Your task to perform on an android device: change notification settings in the gmail app Image 0: 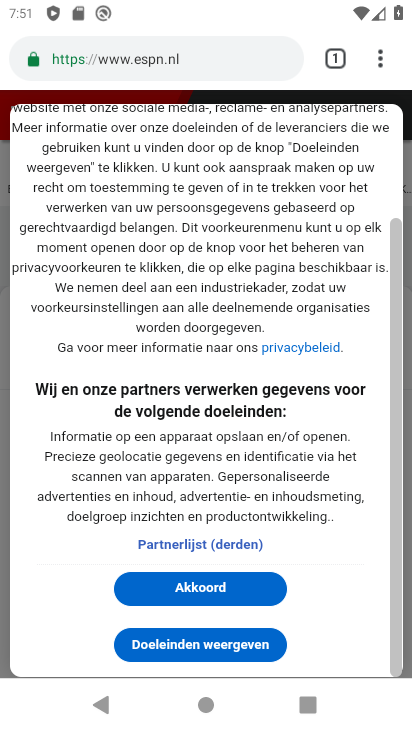
Step 0: click (49, 339)
Your task to perform on an android device: change notification settings in the gmail app Image 1: 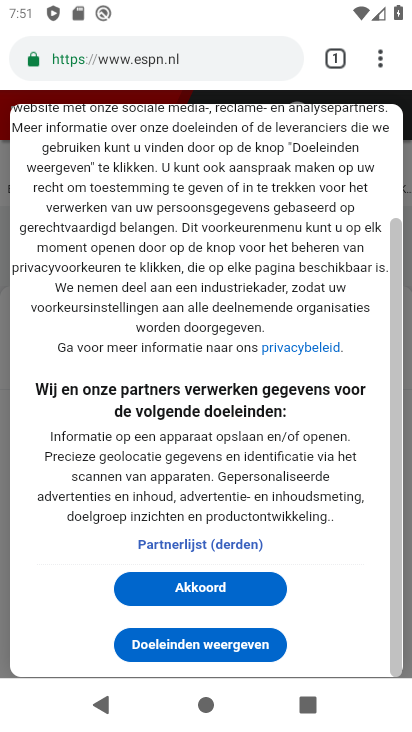
Step 1: press home button
Your task to perform on an android device: change notification settings in the gmail app Image 2: 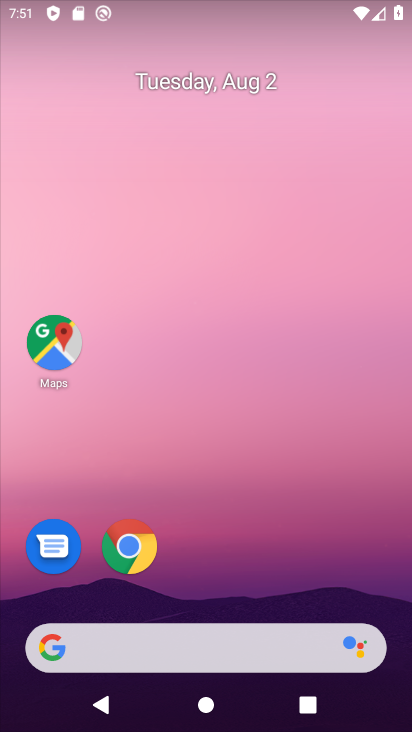
Step 2: drag from (212, 591) to (220, 80)
Your task to perform on an android device: change notification settings in the gmail app Image 3: 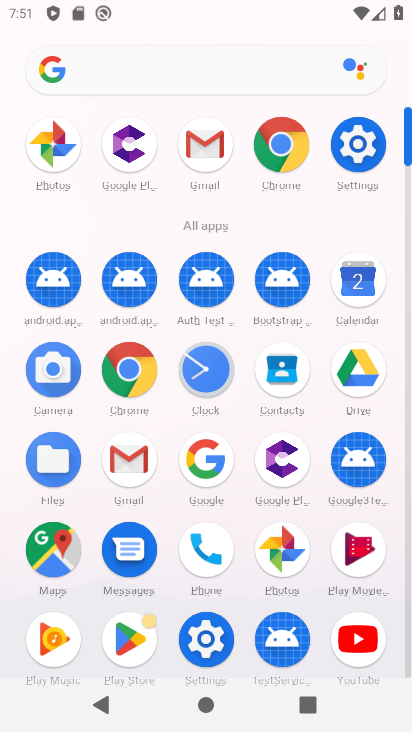
Step 3: click (131, 461)
Your task to perform on an android device: change notification settings in the gmail app Image 4: 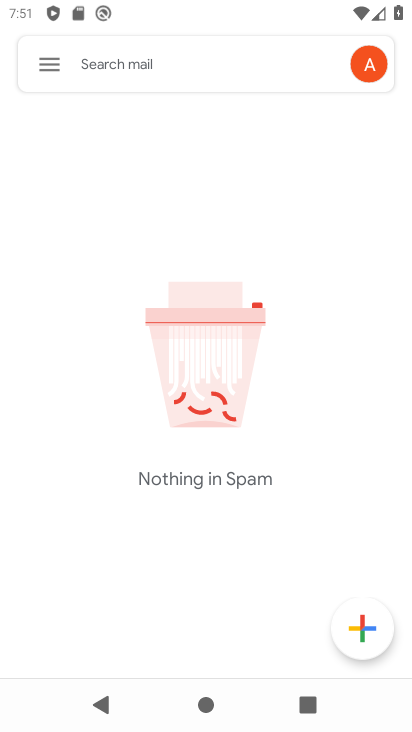
Step 4: click (48, 62)
Your task to perform on an android device: change notification settings in the gmail app Image 5: 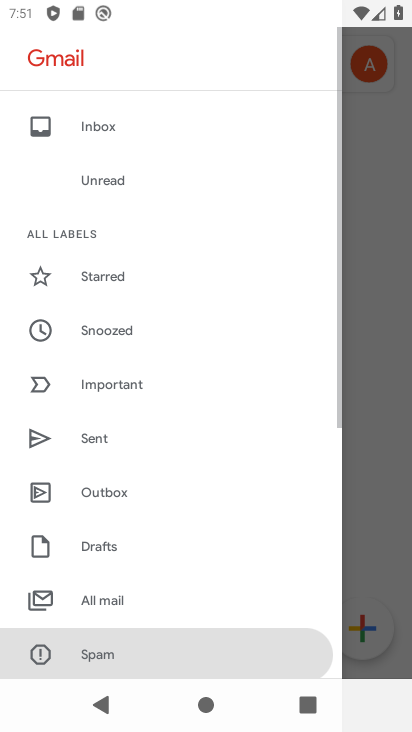
Step 5: drag from (100, 621) to (134, 192)
Your task to perform on an android device: change notification settings in the gmail app Image 6: 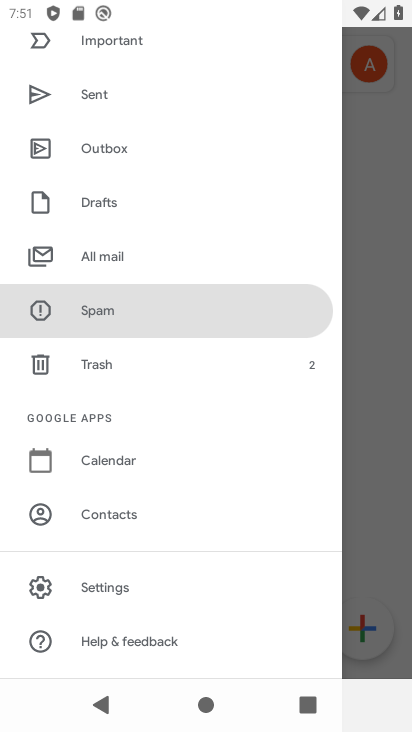
Step 6: click (120, 591)
Your task to perform on an android device: change notification settings in the gmail app Image 7: 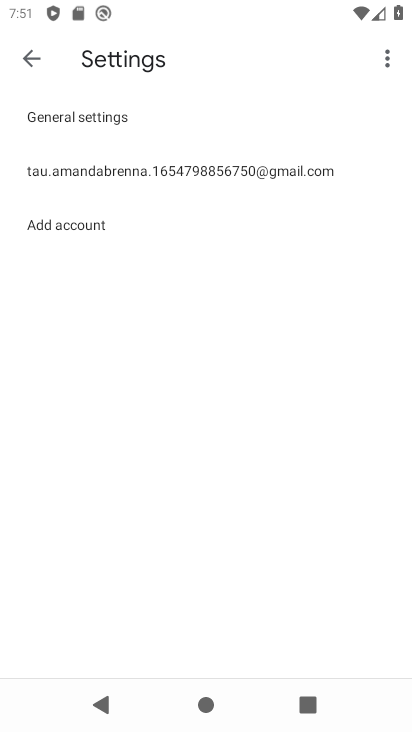
Step 7: click (71, 126)
Your task to perform on an android device: change notification settings in the gmail app Image 8: 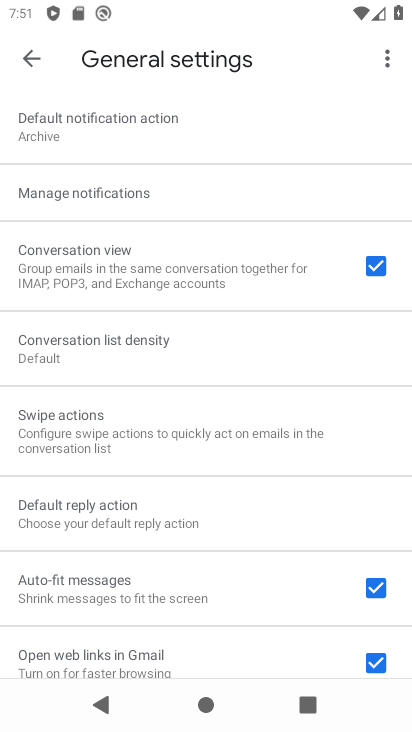
Step 8: click (134, 193)
Your task to perform on an android device: change notification settings in the gmail app Image 9: 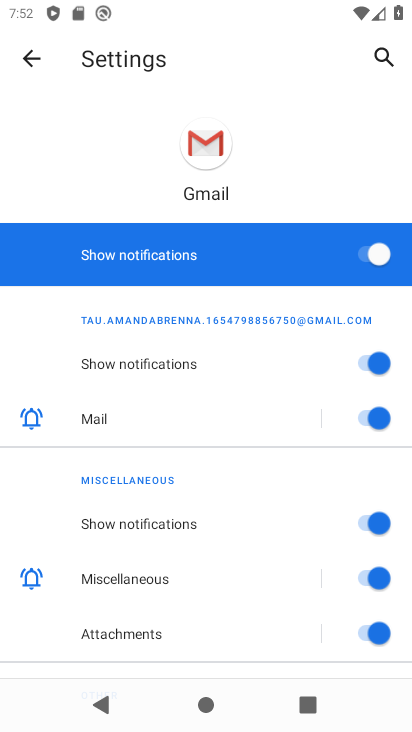
Step 9: click (236, 251)
Your task to perform on an android device: change notification settings in the gmail app Image 10: 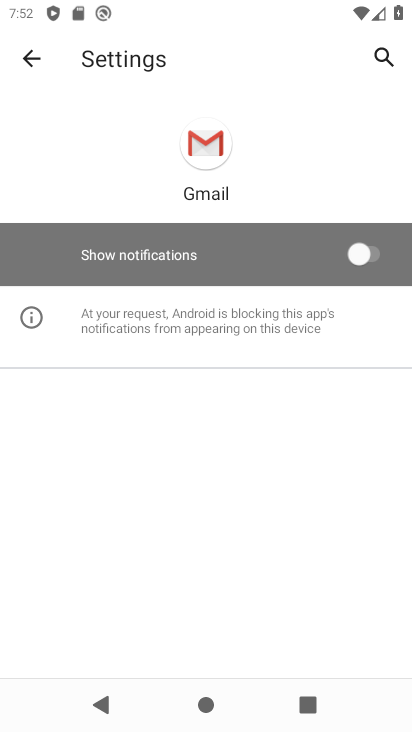
Step 10: task complete